Your task to perform on an android device: Go to notification settings Image 0: 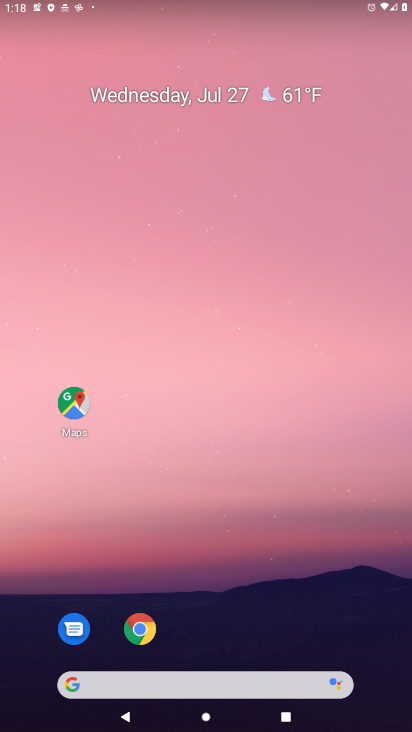
Step 0: drag from (281, 630) to (257, 52)
Your task to perform on an android device: Go to notification settings Image 1: 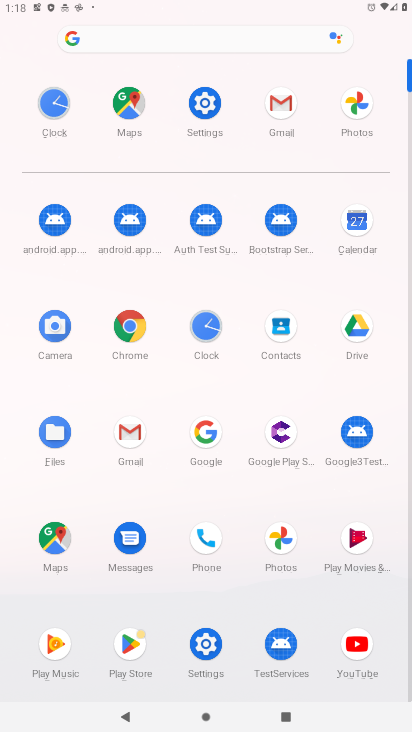
Step 1: click (212, 114)
Your task to perform on an android device: Go to notification settings Image 2: 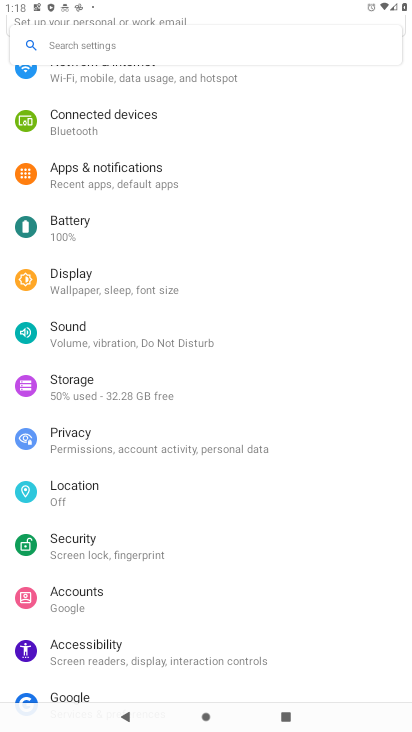
Step 2: click (145, 167)
Your task to perform on an android device: Go to notification settings Image 3: 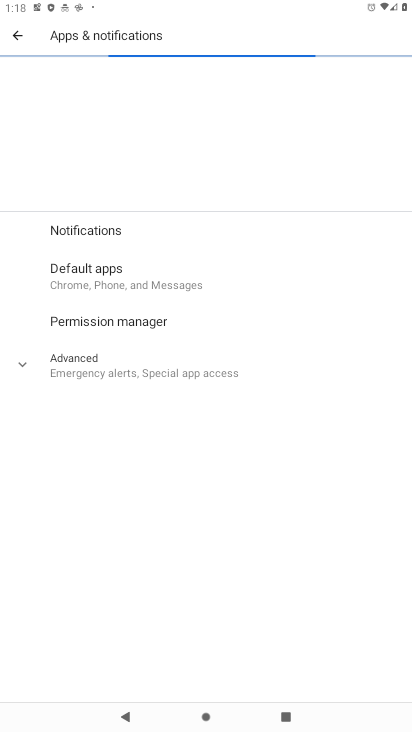
Step 3: task complete